Your task to perform on an android device: Go to eBay Image 0: 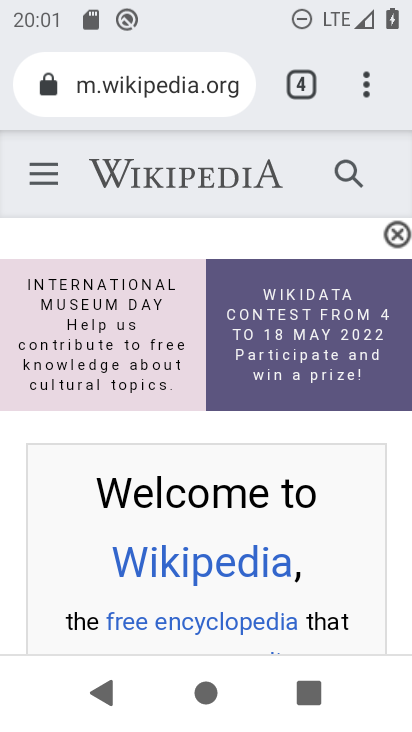
Step 0: press home button
Your task to perform on an android device: Go to eBay Image 1: 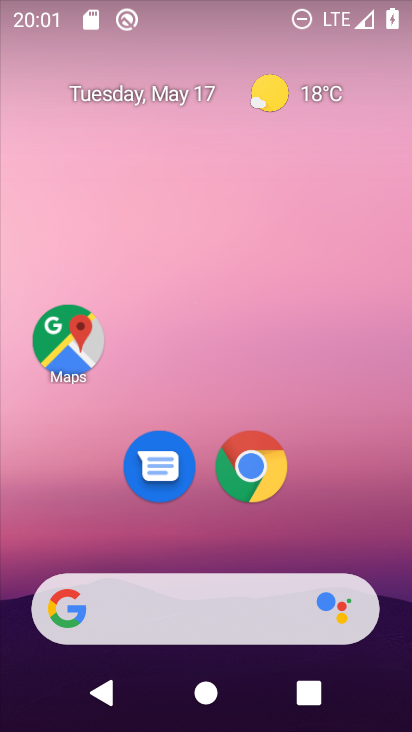
Step 1: click (259, 478)
Your task to perform on an android device: Go to eBay Image 2: 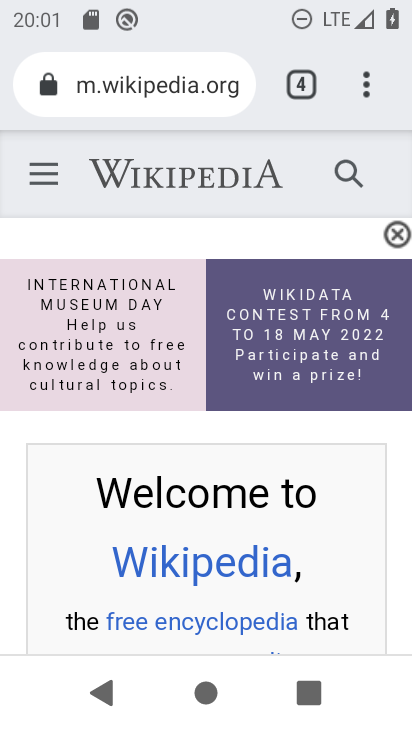
Step 2: drag from (366, 93) to (252, 165)
Your task to perform on an android device: Go to eBay Image 3: 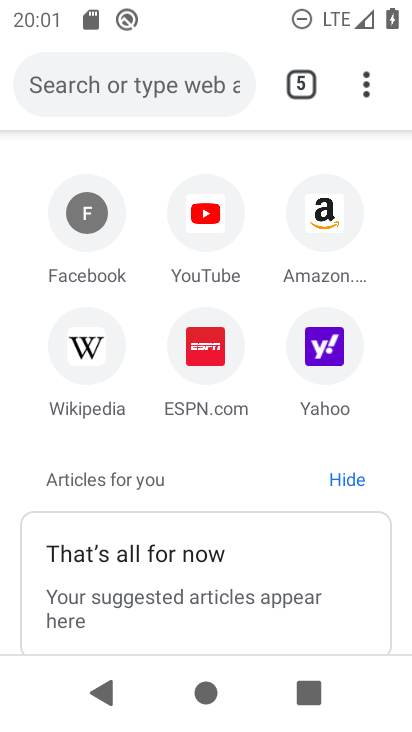
Step 3: click (152, 83)
Your task to perform on an android device: Go to eBay Image 4: 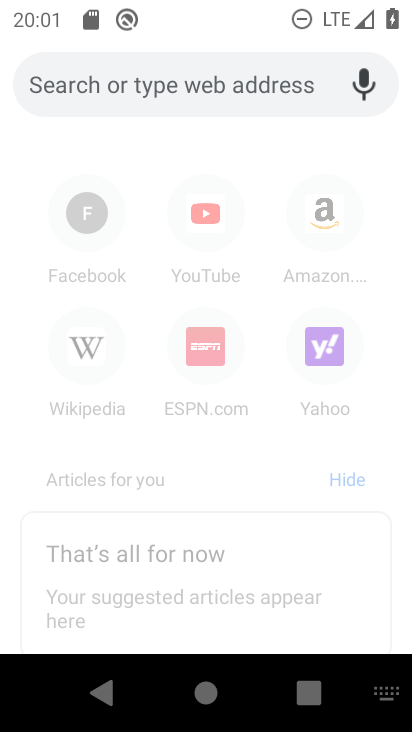
Step 4: type "ebay"
Your task to perform on an android device: Go to eBay Image 5: 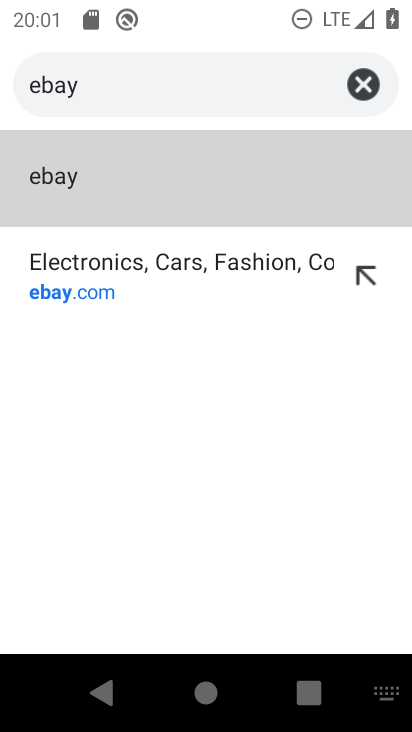
Step 5: click (181, 271)
Your task to perform on an android device: Go to eBay Image 6: 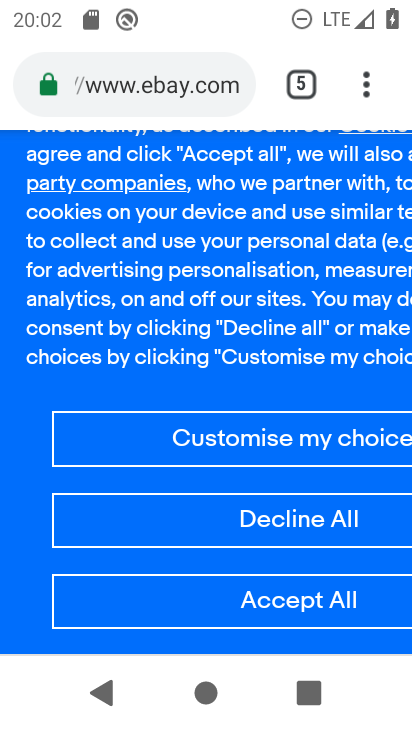
Step 6: task complete